Your task to perform on an android device: turn on javascript in the chrome app Image 0: 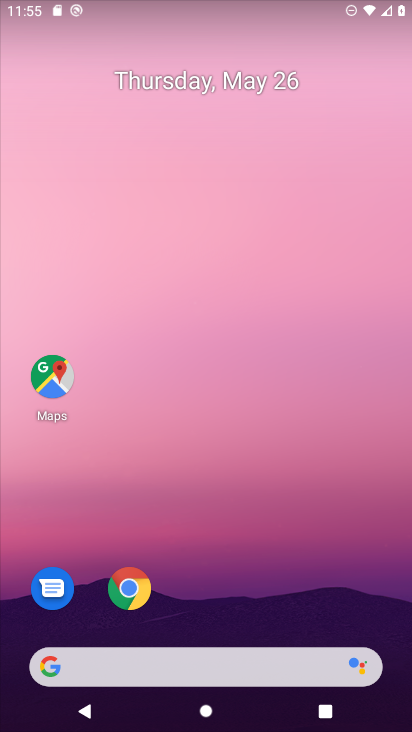
Step 0: click (128, 589)
Your task to perform on an android device: turn on javascript in the chrome app Image 1: 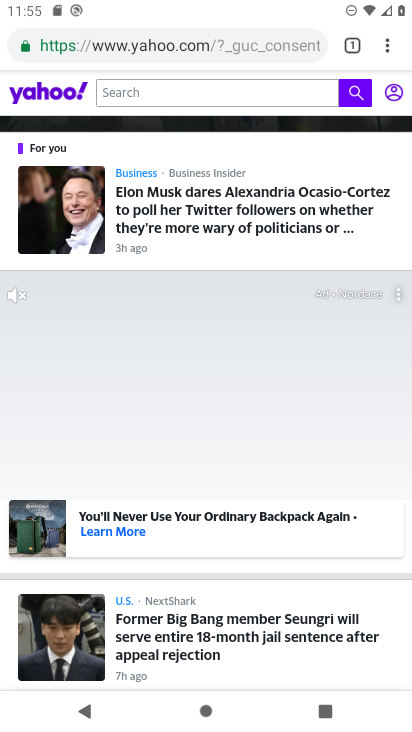
Step 1: click (384, 50)
Your task to perform on an android device: turn on javascript in the chrome app Image 2: 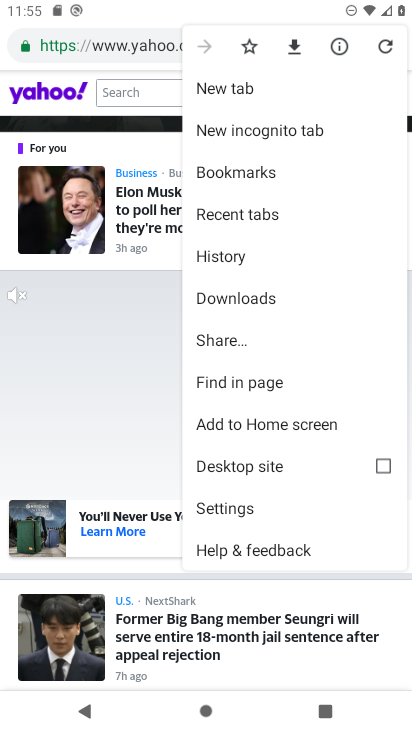
Step 2: click (229, 508)
Your task to perform on an android device: turn on javascript in the chrome app Image 3: 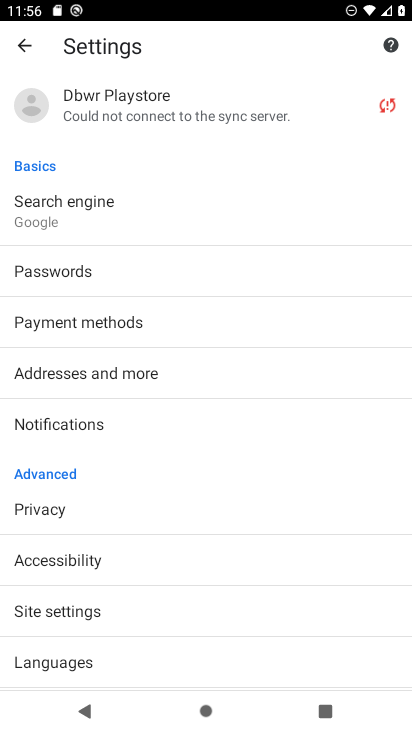
Step 3: click (86, 608)
Your task to perform on an android device: turn on javascript in the chrome app Image 4: 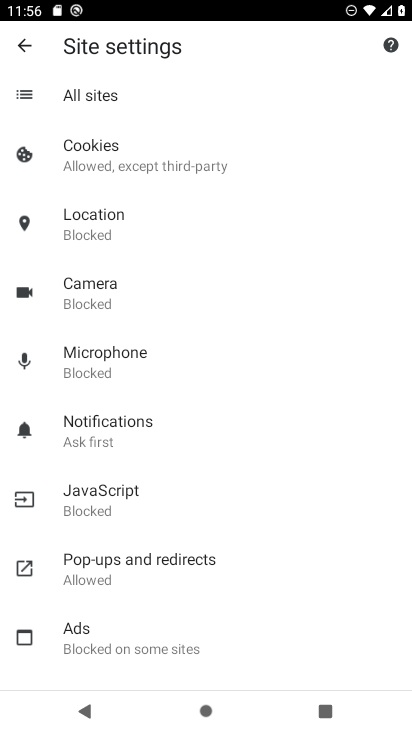
Step 4: click (96, 499)
Your task to perform on an android device: turn on javascript in the chrome app Image 5: 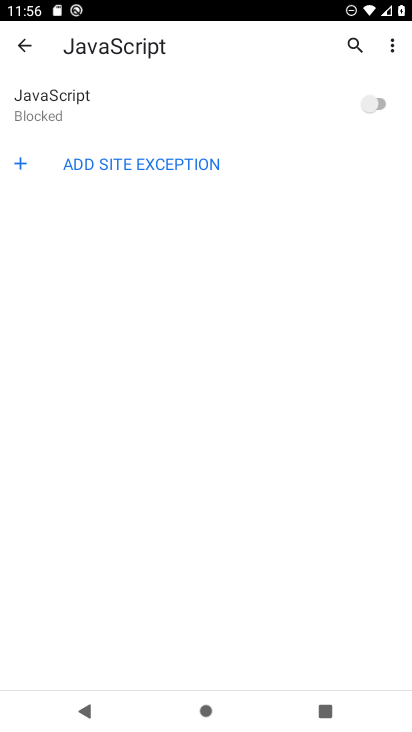
Step 5: click (384, 107)
Your task to perform on an android device: turn on javascript in the chrome app Image 6: 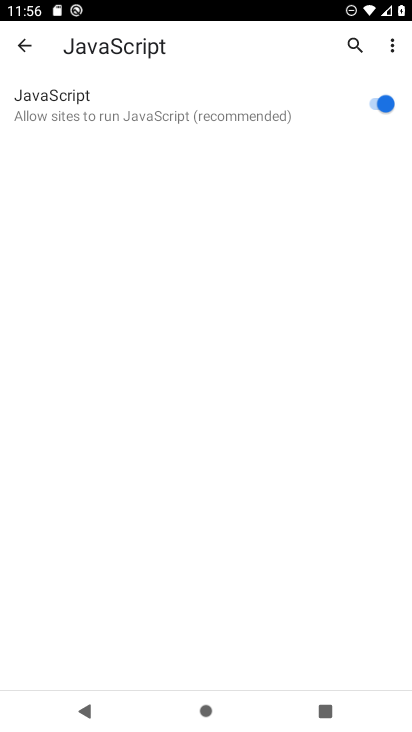
Step 6: task complete